Your task to perform on an android device: allow notifications from all sites in the chrome app Image 0: 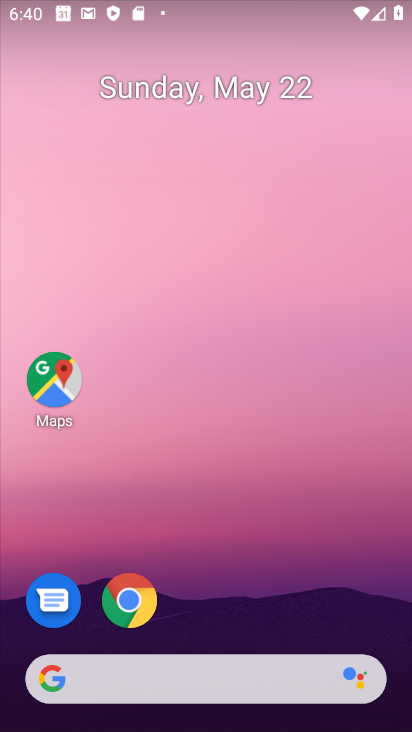
Step 0: drag from (242, 608) to (177, 43)
Your task to perform on an android device: allow notifications from all sites in the chrome app Image 1: 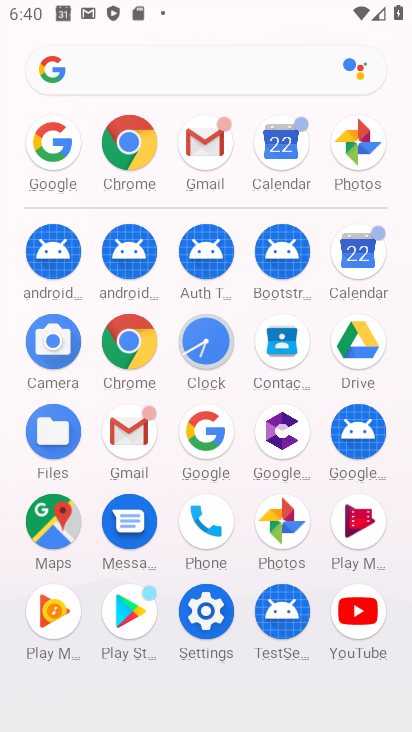
Step 1: click (137, 142)
Your task to perform on an android device: allow notifications from all sites in the chrome app Image 2: 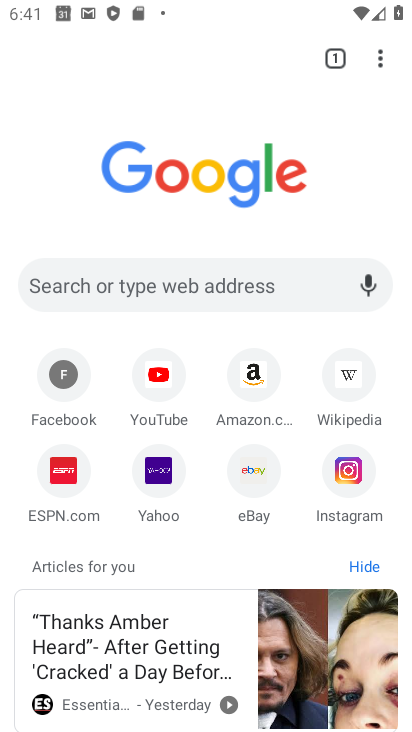
Step 2: click (375, 62)
Your task to perform on an android device: allow notifications from all sites in the chrome app Image 3: 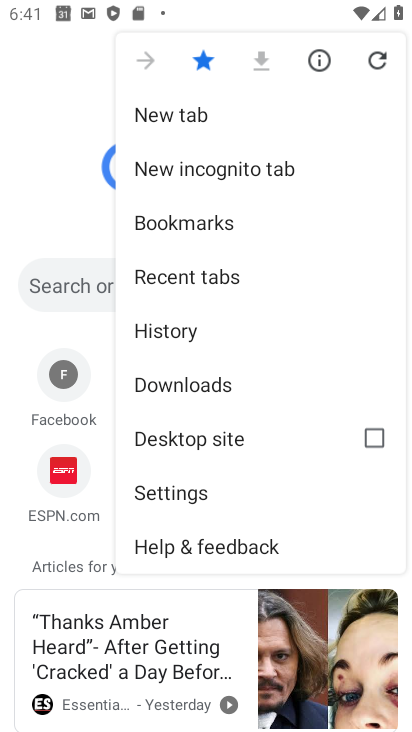
Step 3: click (203, 338)
Your task to perform on an android device: allow notifications from all sites in the chrome app Image 4: 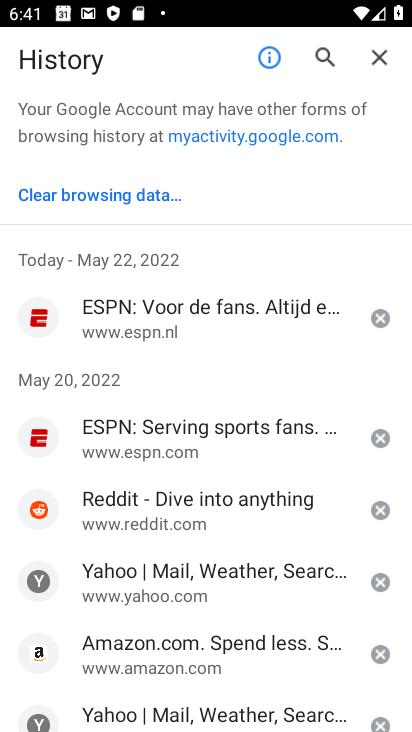
Step 4: press back button
Your task to perform on an android device: allow notifications from all sites in the chrome app Image 5: 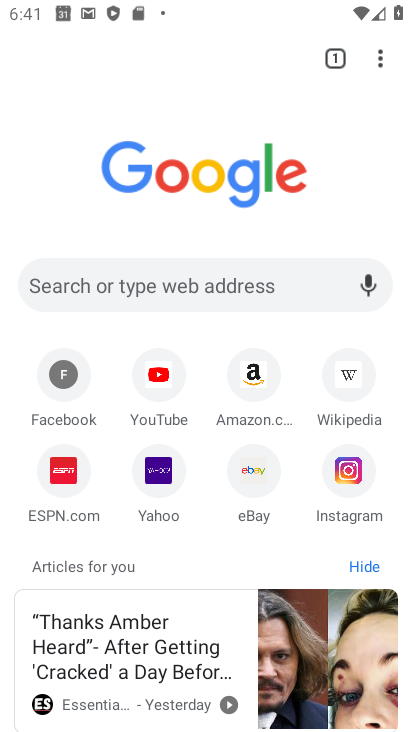
Step 5: click (381, 55)
Your task to perform on an android device: allow notifications from all sites in the chrome app Image 6: 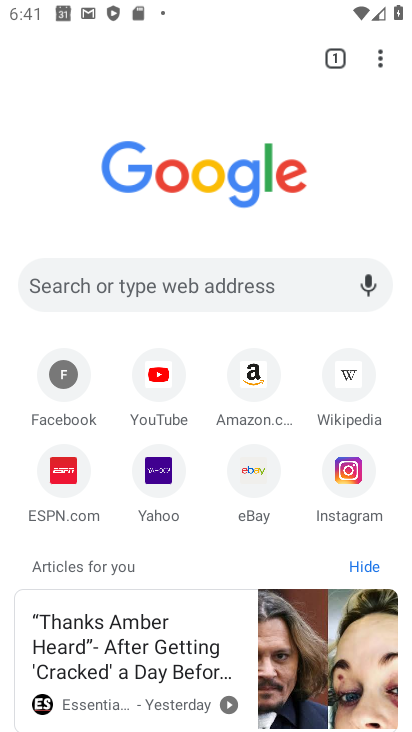
Step 6: click (379, 56)
Your task to perform on an android device: allow notifications from all sites in the chrome app Image 7: 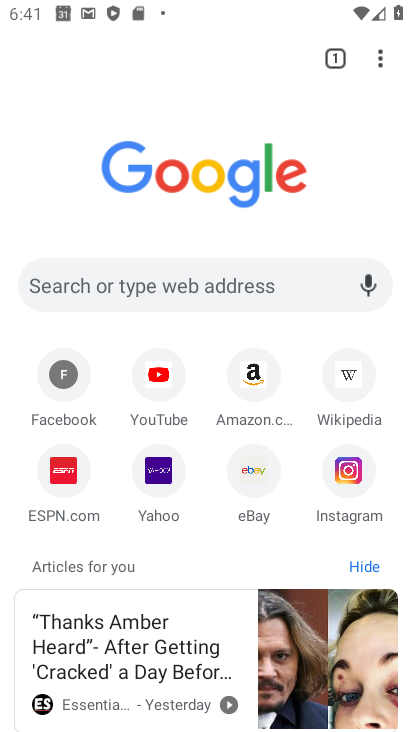
Step 7: click (377, 57)
Your task to perform on an android device: allow notifications from all sites in the chrome app Image 8: 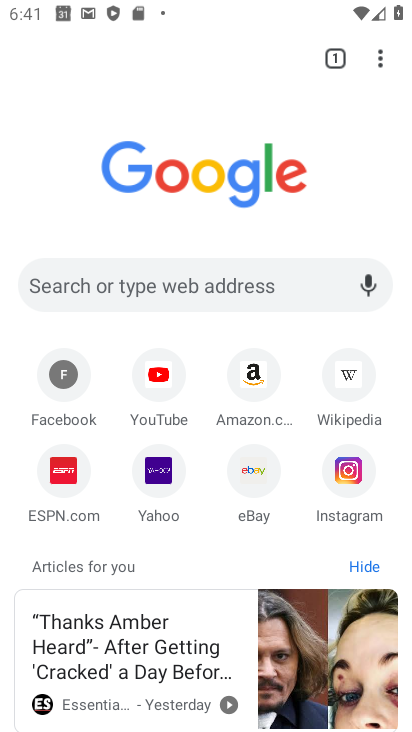
Step 8: click (378, 53)
Your task to perform on an android device: allow notifications from all sites in the chrome app Image 9: 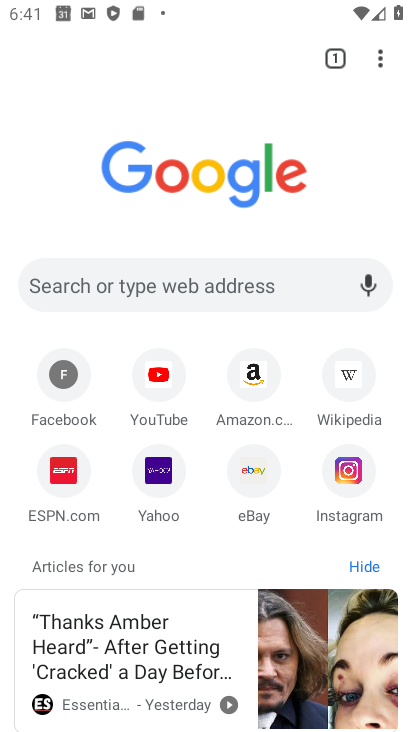
Step 9: click (378, 61)
Your task to perform on an android device: allow notifications from all sites in the chrome app Image 10: 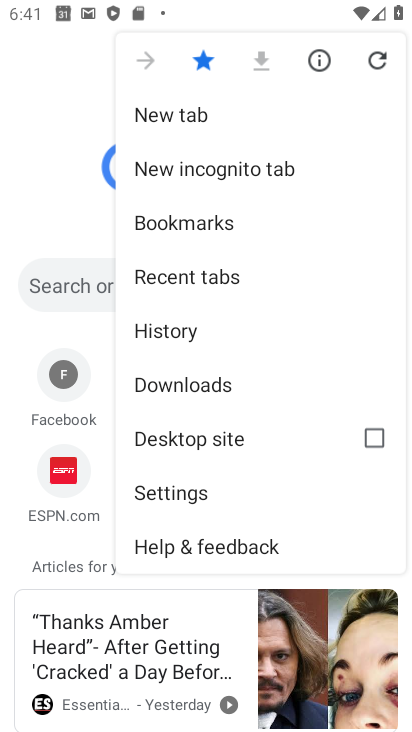
Step 10: click (192, 507)
Your task to perform on an android device: allow notifications from all sites in the chrome app Image 11: 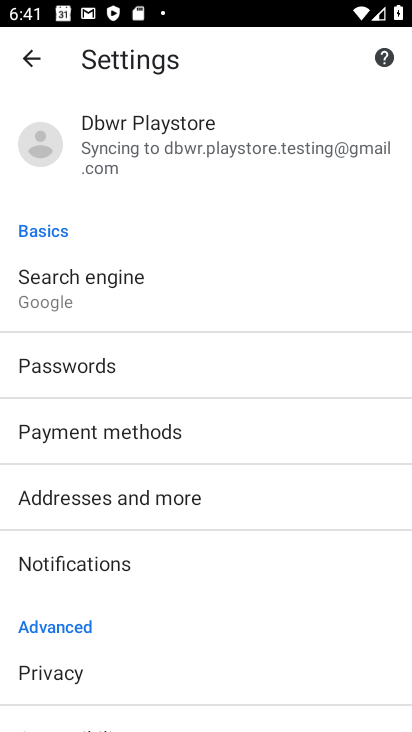
Step 11: click (99, 565)
Your task to perform on an android device: allow notifications from all sites in the chrome app Image 12: 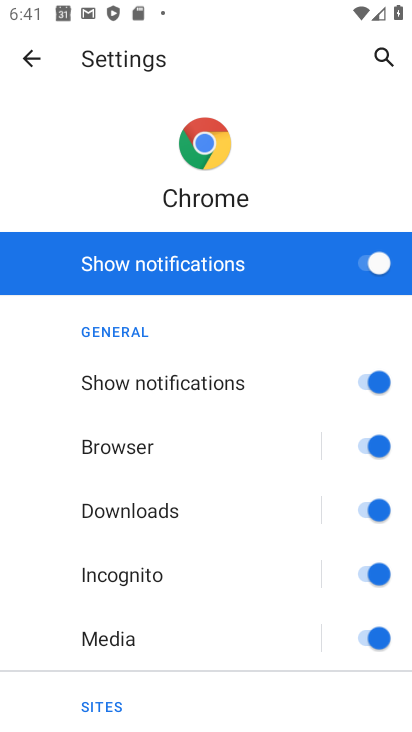
Step 12: task complete